Your task to perform on an android device: turn on wifi Image 0: 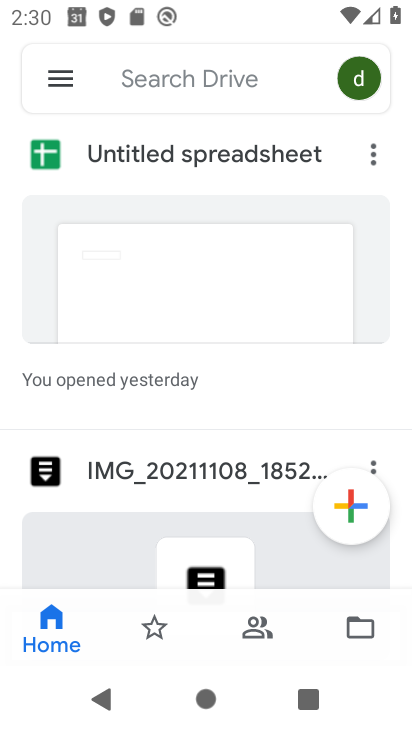
Step 0: press home button
Your task to perform on an android device: turn on wifi Image 1: 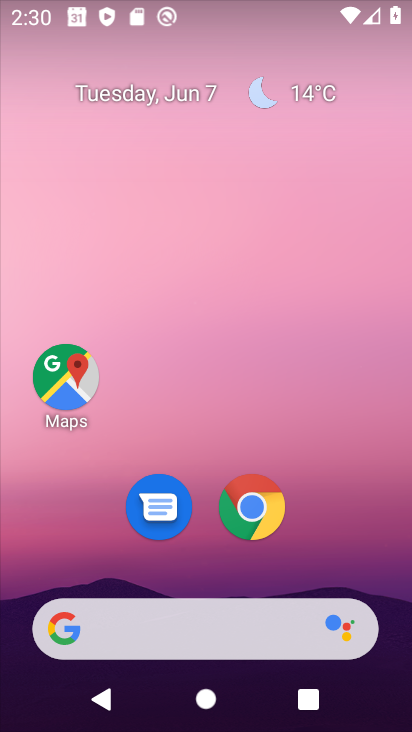
Step 1: drag from (340, 509) to (330, 73)
Your task to perform on an android device: turn on wifi Image 2: 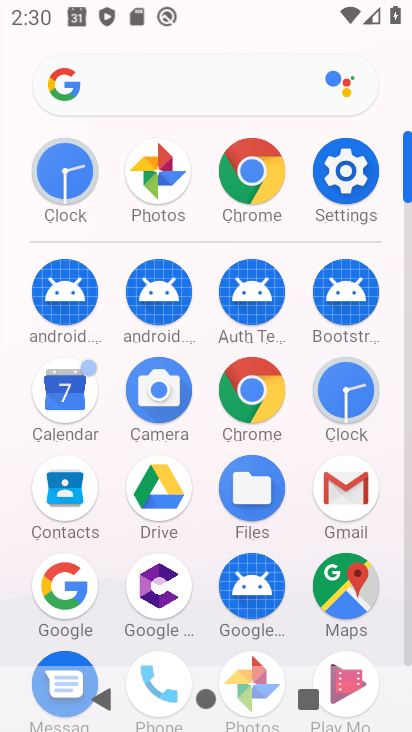
Step 2: click (365, 162)
Your task to perform on an android device: turn on wifi Image 3: 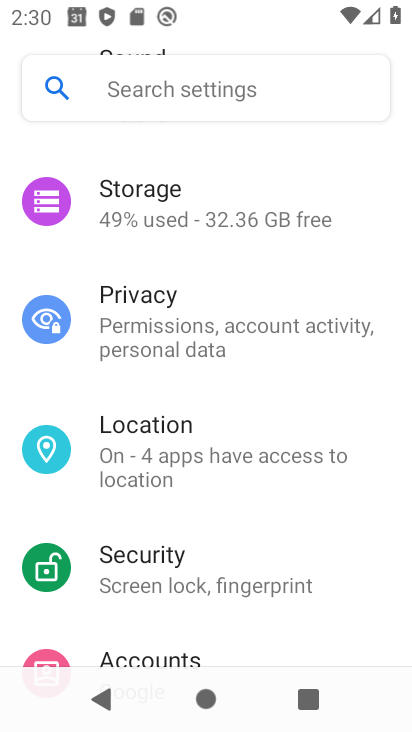
Step 3: drag from (210, 227) to (230, 645)
Your task to perform on an android device: turn on wifi Image 4: 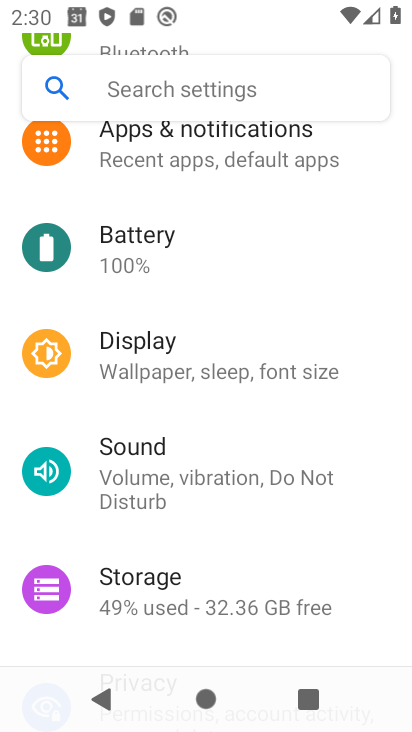
Step 4: drag from (248, 248) to (198, 646)
Your task to perform on an android device: turn on wifi Image 5: 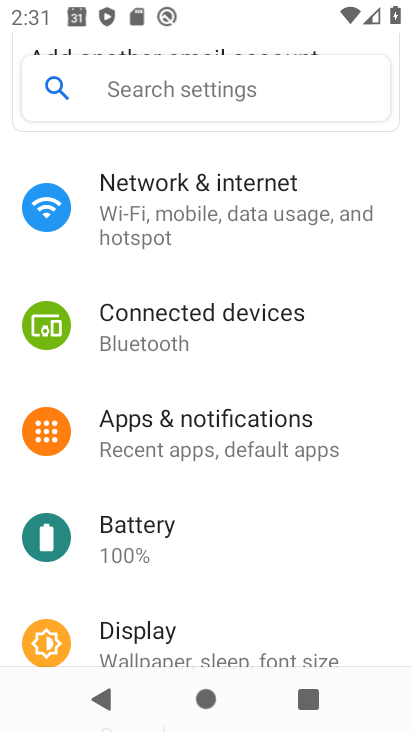
Step 5: click (223, 219)
Your task to perform on an android device: turn on wifi Image 6: 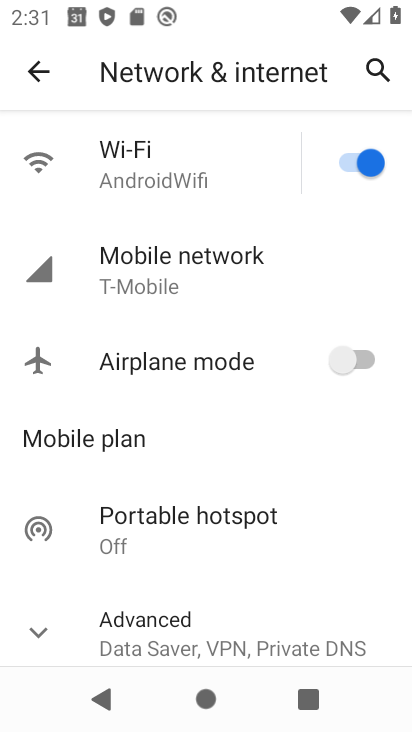
Step 6: click (97, 145)
Your task to perform on an android device: turn on wifi Image 7: 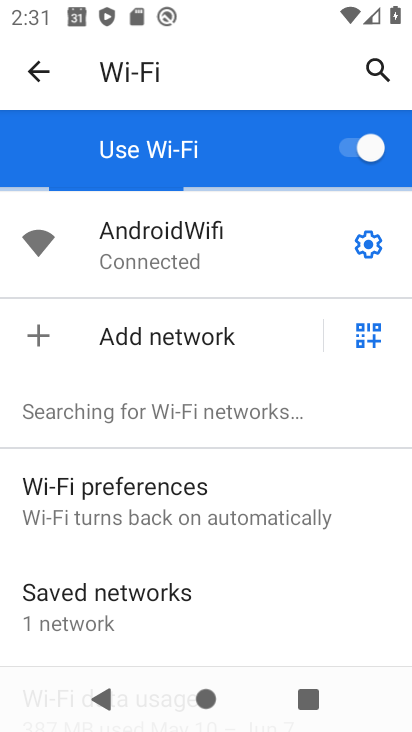
Step 7: task complete